Your task to perform on an android device: turn on sleep mode Image 0: 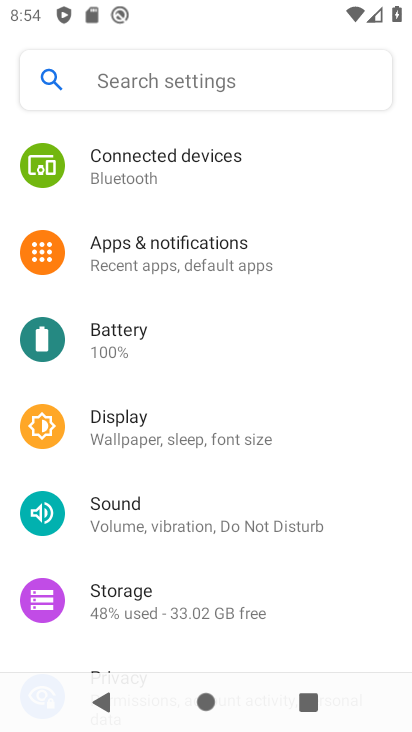
Step 0: press home button
Your task to perform on an android device: turn on sleep mode Image 1: 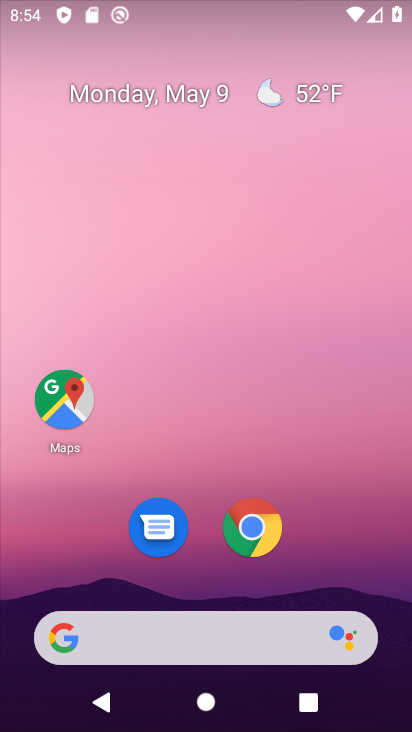
Step 1: drag from (343, 551) to (314, 187)
Your task to perform on an android device: turn on sleep mode Image 2: 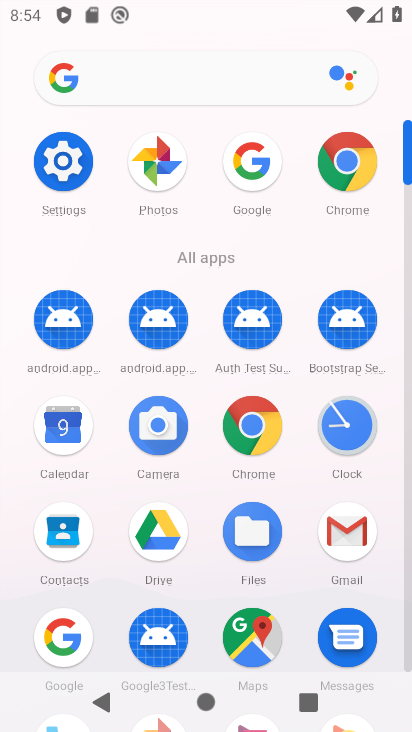
Step 2: click (63, 163)
Your task to perform on an android device: turn on sleep mode Image 3: 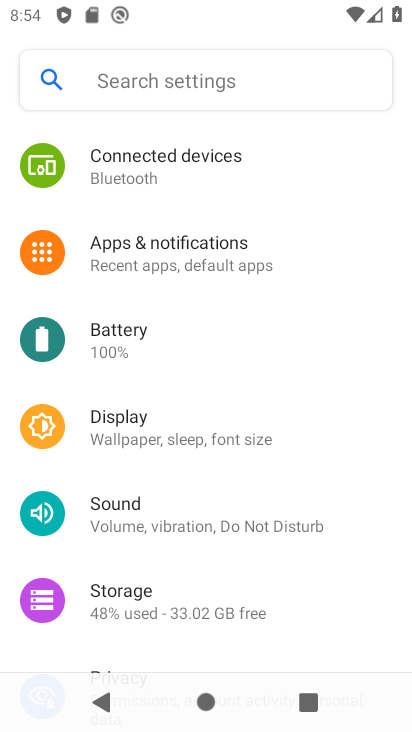
Step 3: click (187, 88)
Your task to perform on an android device: turn on sleep mode Image 4: 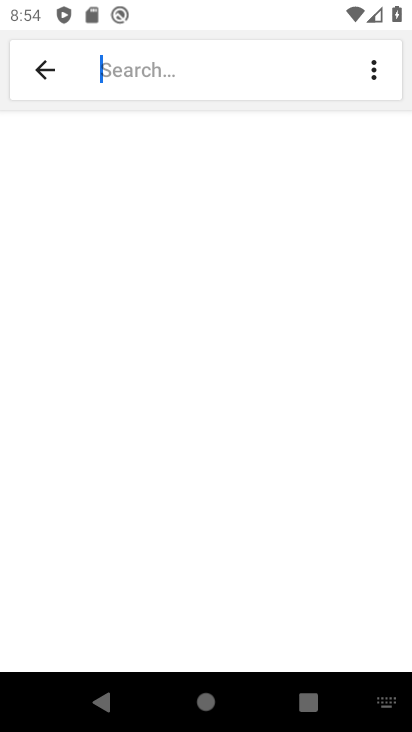
Step 4: type "sleep mode"
Your task to perform on an android device: turn on sleep mode Image 5: 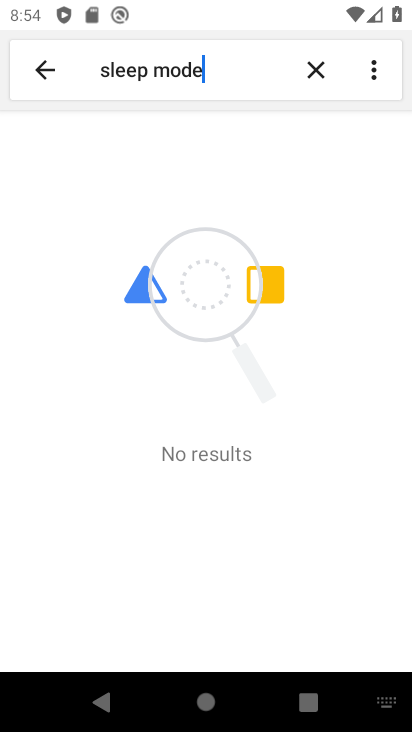
Step 5: task complete